Your task to perform on an android device: turn off smart reply in the gmail app Image 0: 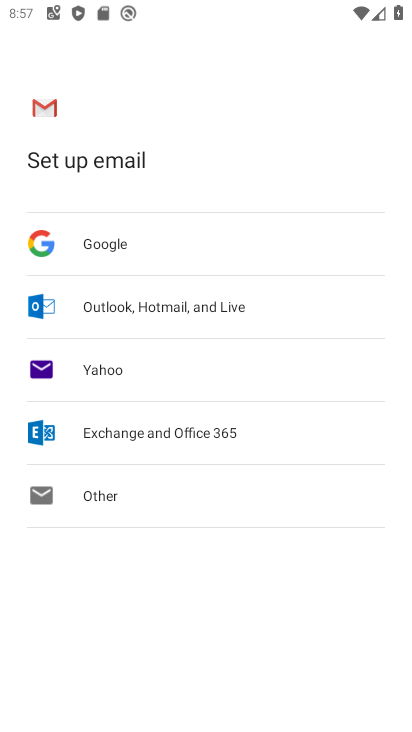
Step 0: press home button
Your task to perform on an android device: turn off smart reply in the gmail app Image 1: 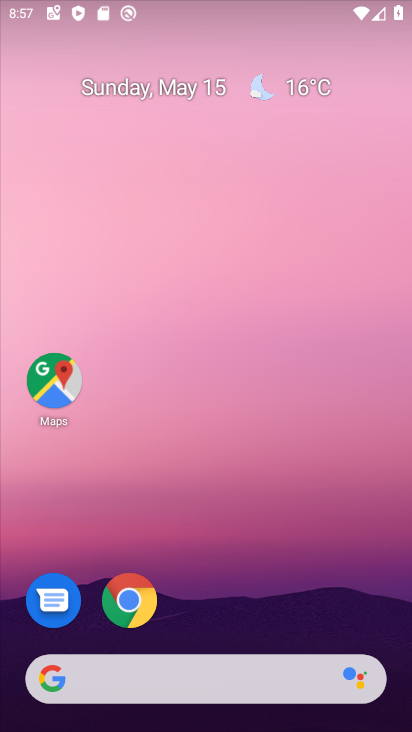
Step 1: drag from (254, 573) to (248, 139)
Your task to perform on an android device: turn off smart reply in the gmail app Image 2: 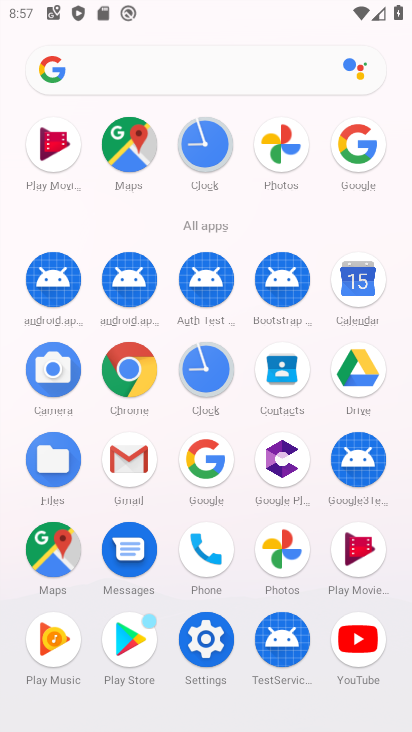
Step 2: click (125, 457)
Your task to perform on an android device: turn off smart reply in the gmail app Image 3: 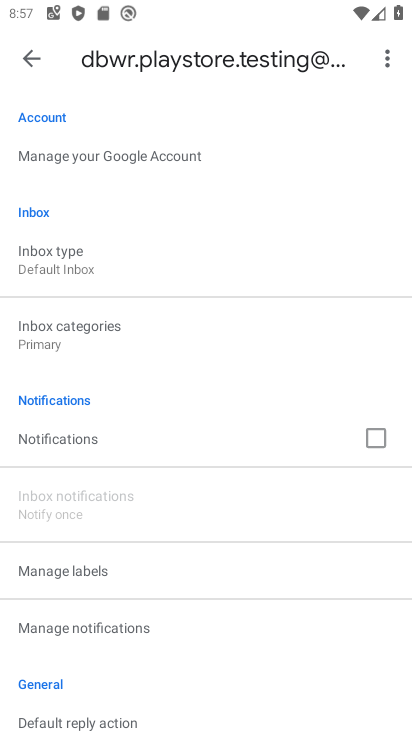
Step 3: drag from (132, 592) to (190, 140)
Your task to perform on an android device: turn off smart reply in the gmail app Image 4: 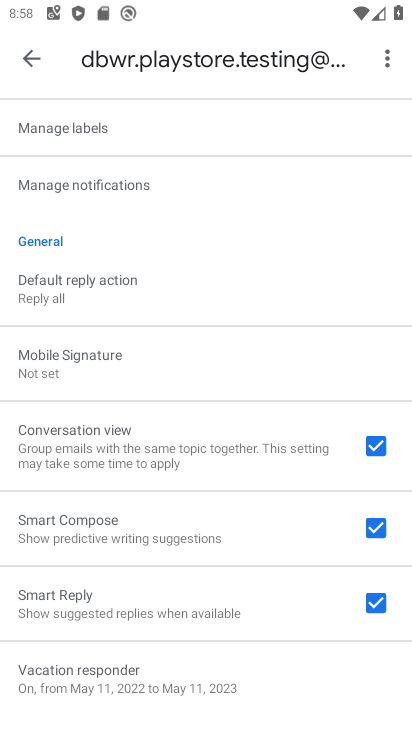
Step 4: click (375, 605)
Your task to perform on an android device: turn off smart reply in the gmail app Image 5: 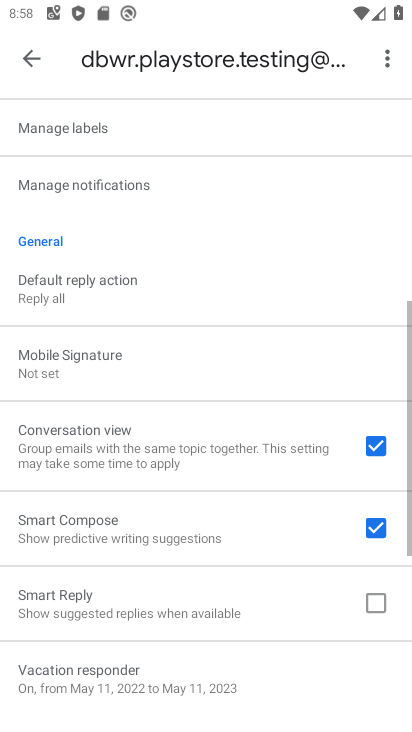
Step 5: task complete